Your task to perform on an android device: Open maps Image 0: 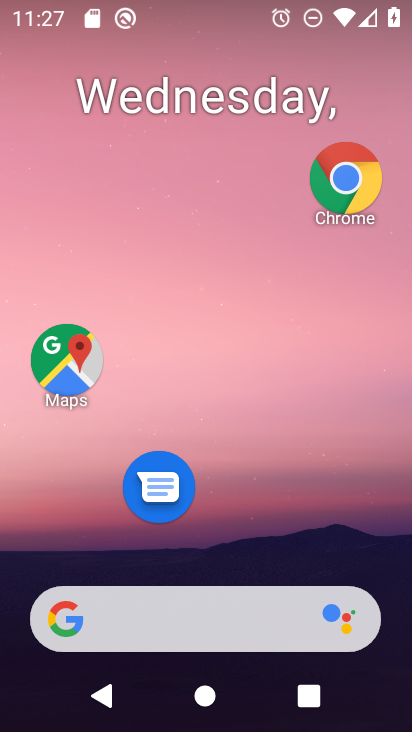
Step 0: drag from (215, 600) to (241, 126)
Your task to perform on an android device: Open maps Image 1: 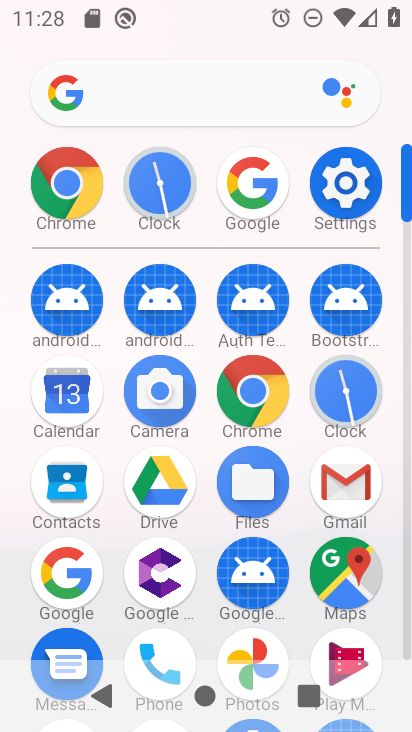
Step 1: click (345, 577)
Your task to perform on an android device: Open maps Image 2: 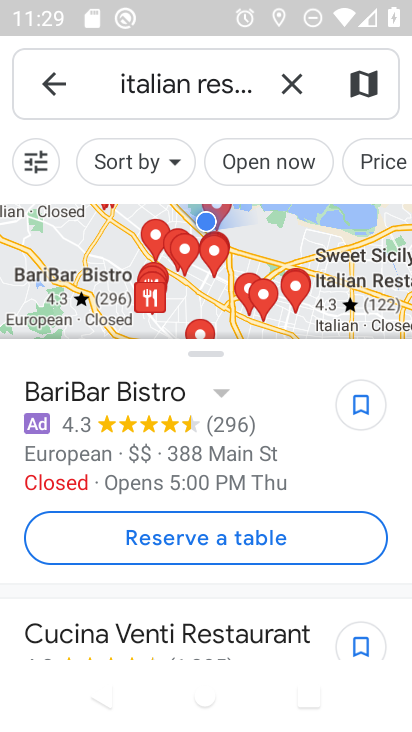
Step 2: task complete